Your task to perform on an android device: When is my next meeting? Image 0: 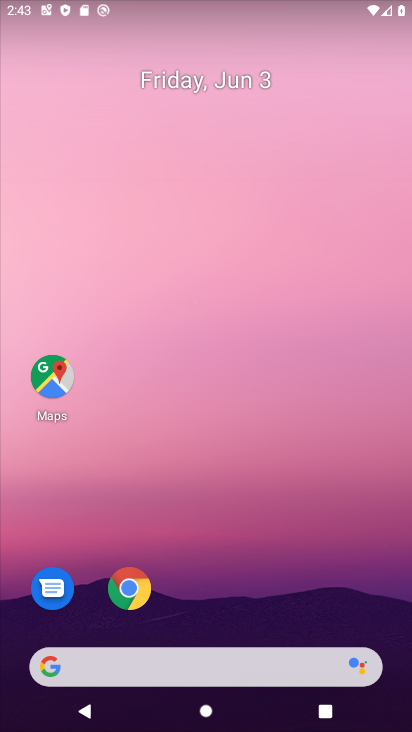
Step 0: drag from (229, 570) to (269, 200)
Your task to perform on an android device: When is my next meeting? Image 1: 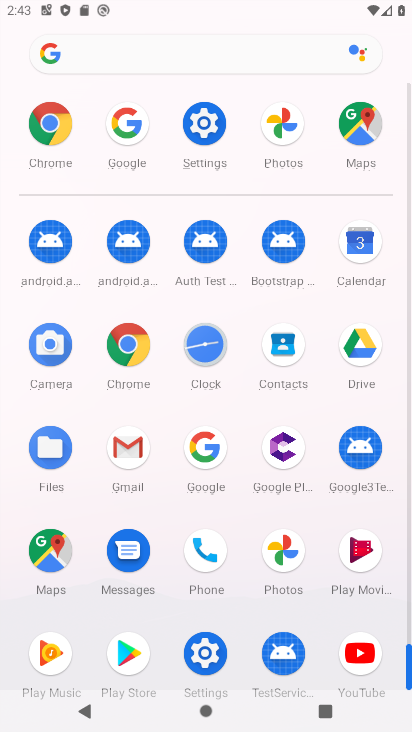
Step 1: click (372, 257)
Your task to perform on an android device: When is my next meeting? Image 2: 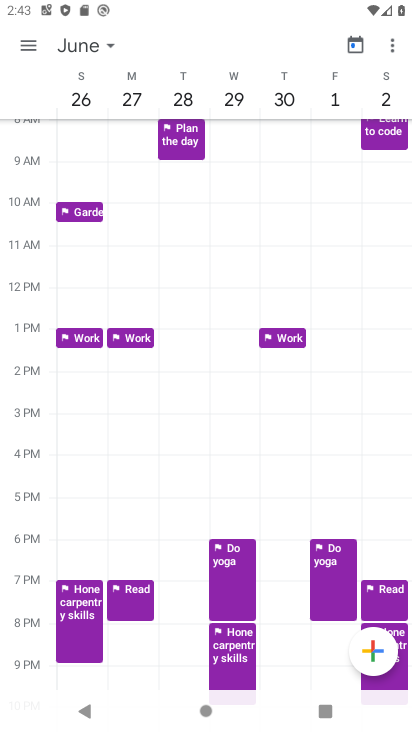
Step 2: task complete